Your task to perform on an android device: install app "Microsoft Authenticator" Image 0: 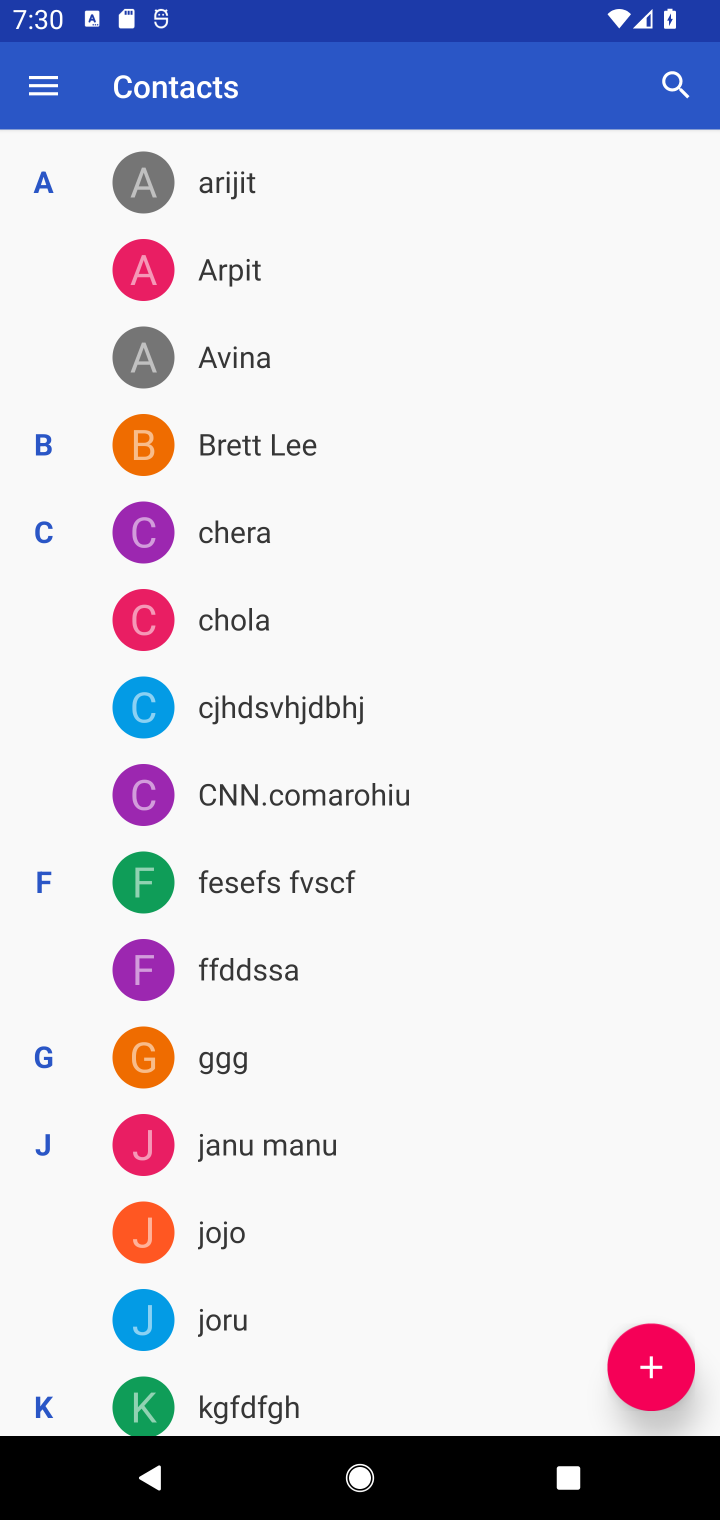
Step 0: press home button
Your task to perform on an android device: install app "Microsoft Authenticator" Image 1: 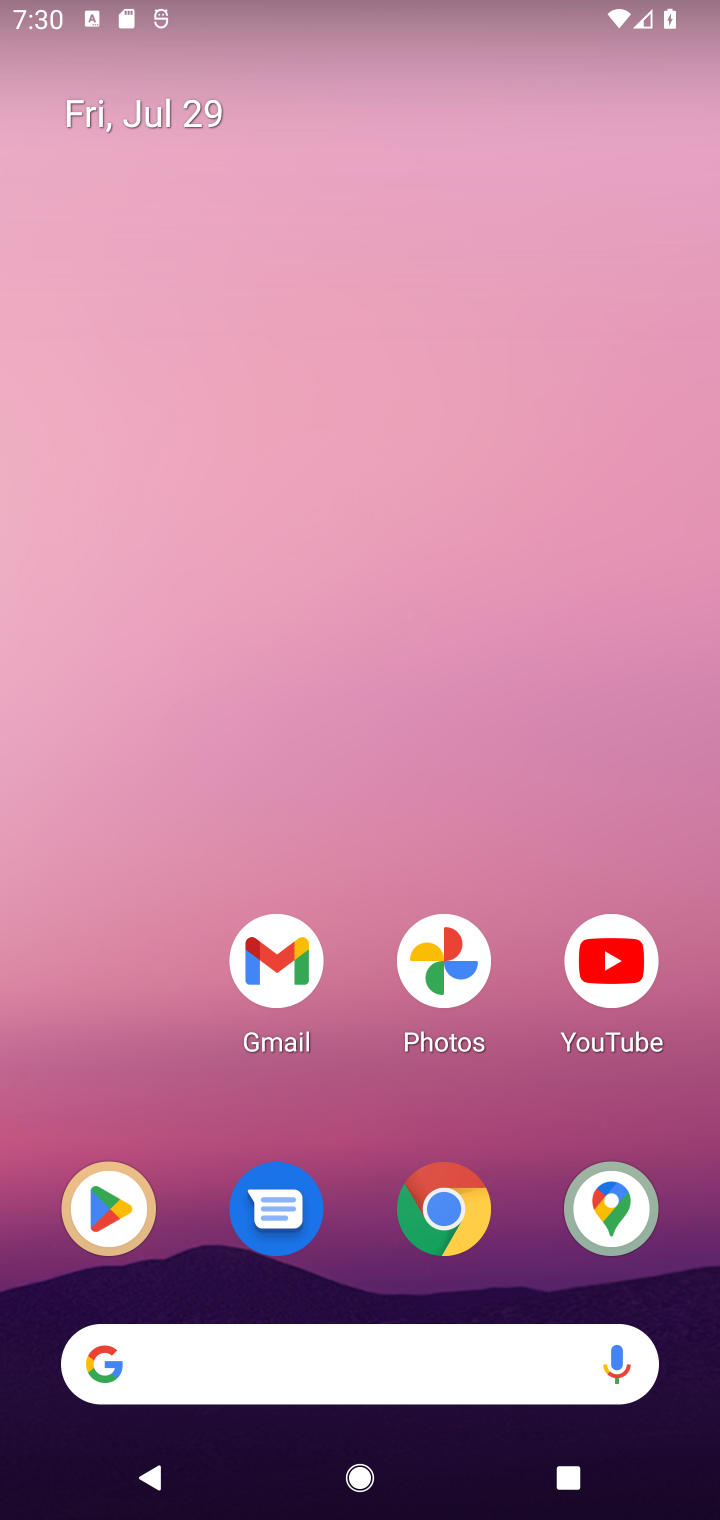
Step 1: click (121, 1209)
Your task to perform on an android device: install app "Microsoft Authenticator" Image 2: 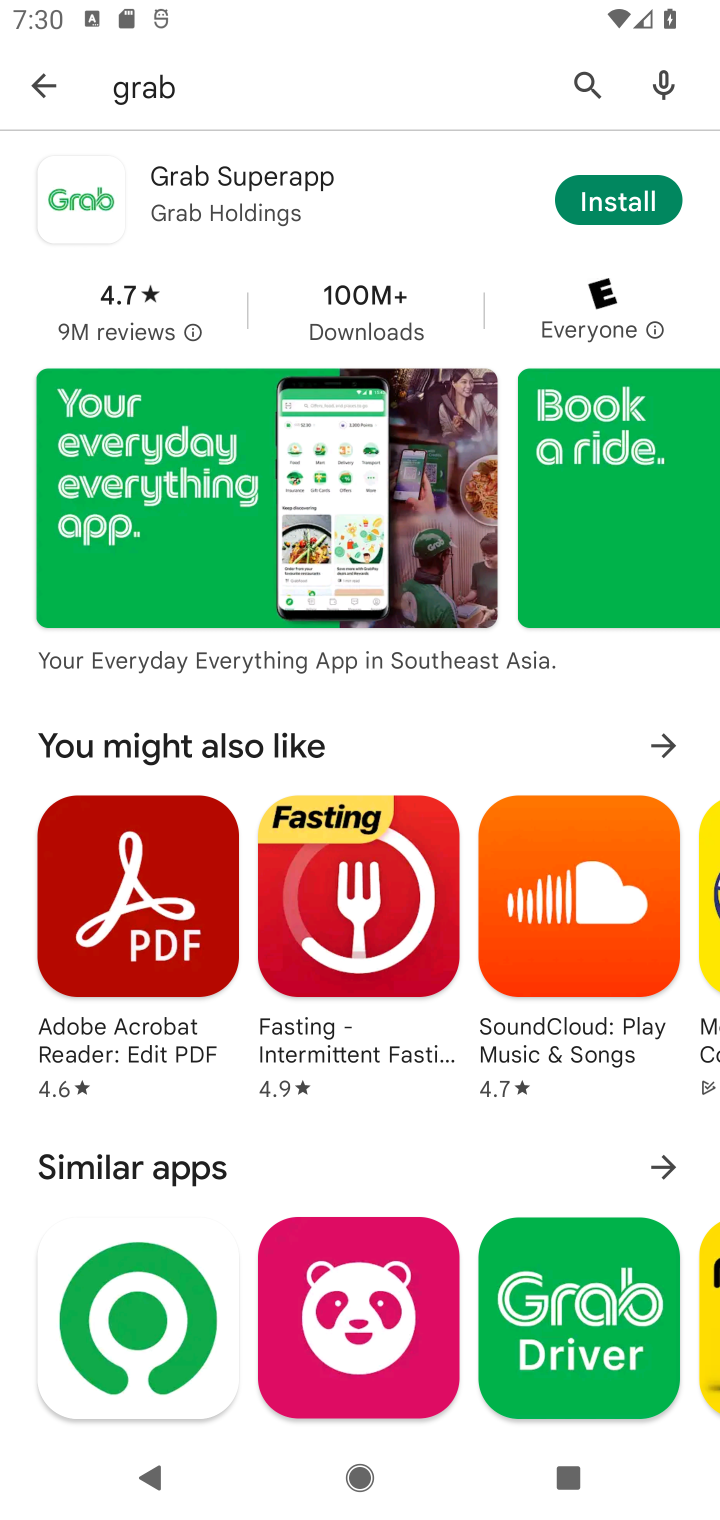
Step 2: click (597, 70)
Your task to perform on an android device: install app "Microsoft Authenticator" Image 3: 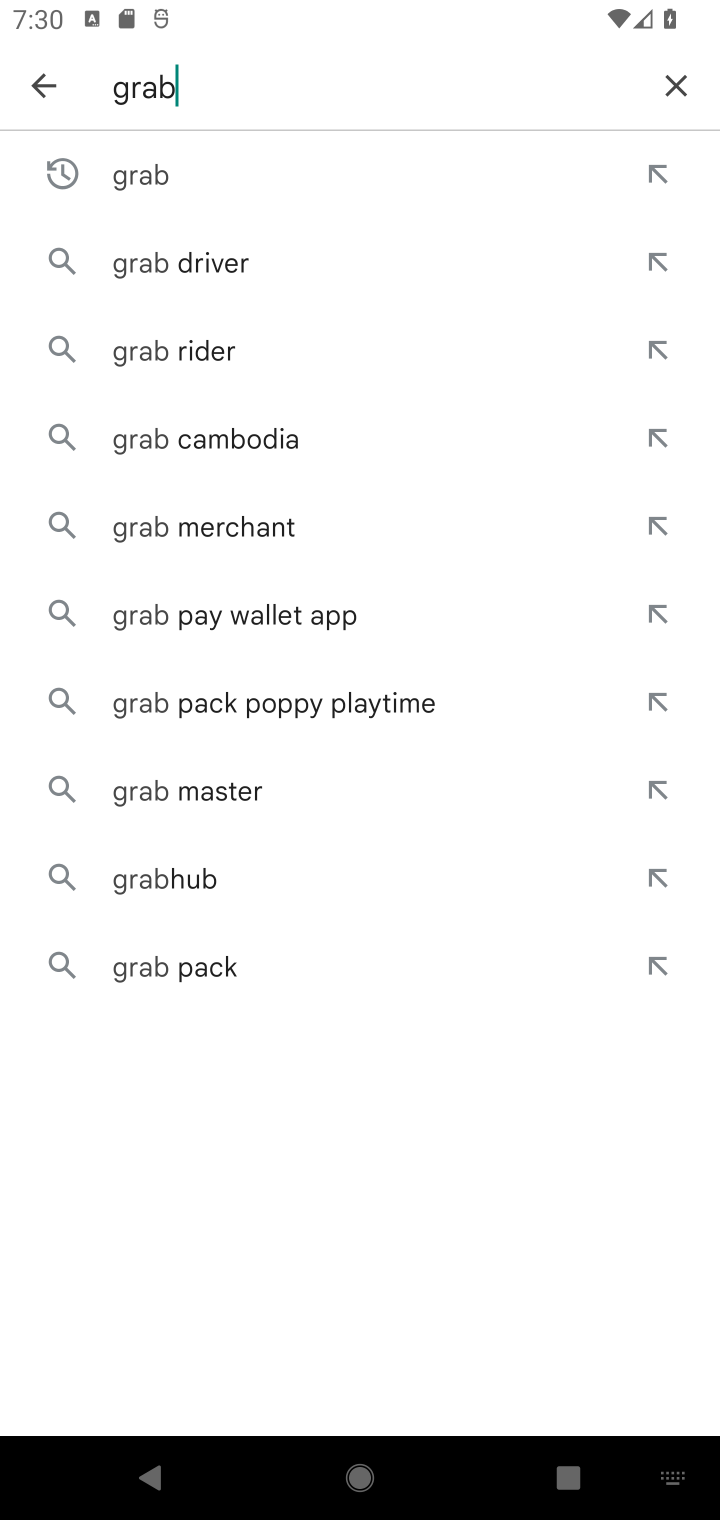
Step 3: click (678, 78)
Your task to perform on an android device: install app "Microsoft Authenticator" Image 4: 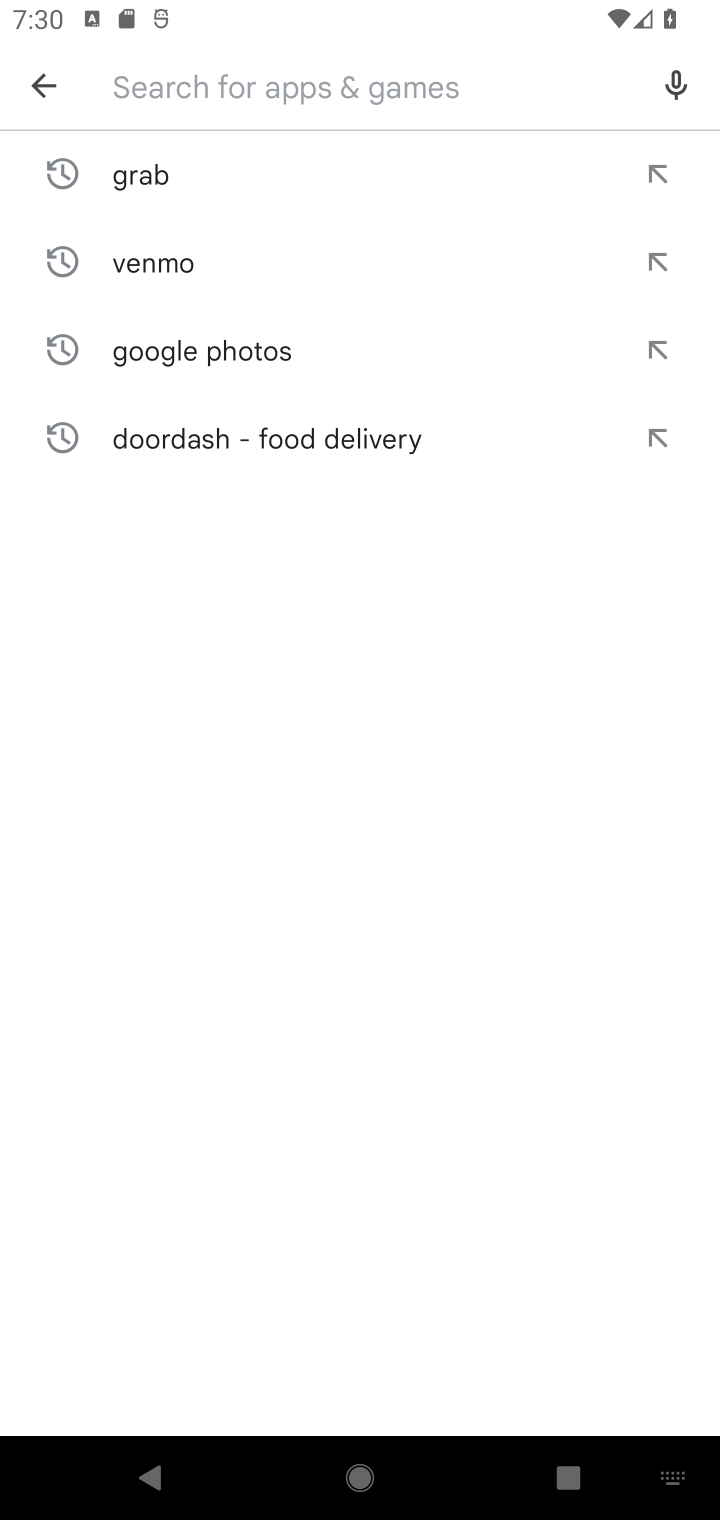
Step 4: type "Microsoft Authenticator"
Your task to perform on an android device: install app "Microsoft Authenticator" Image 5: 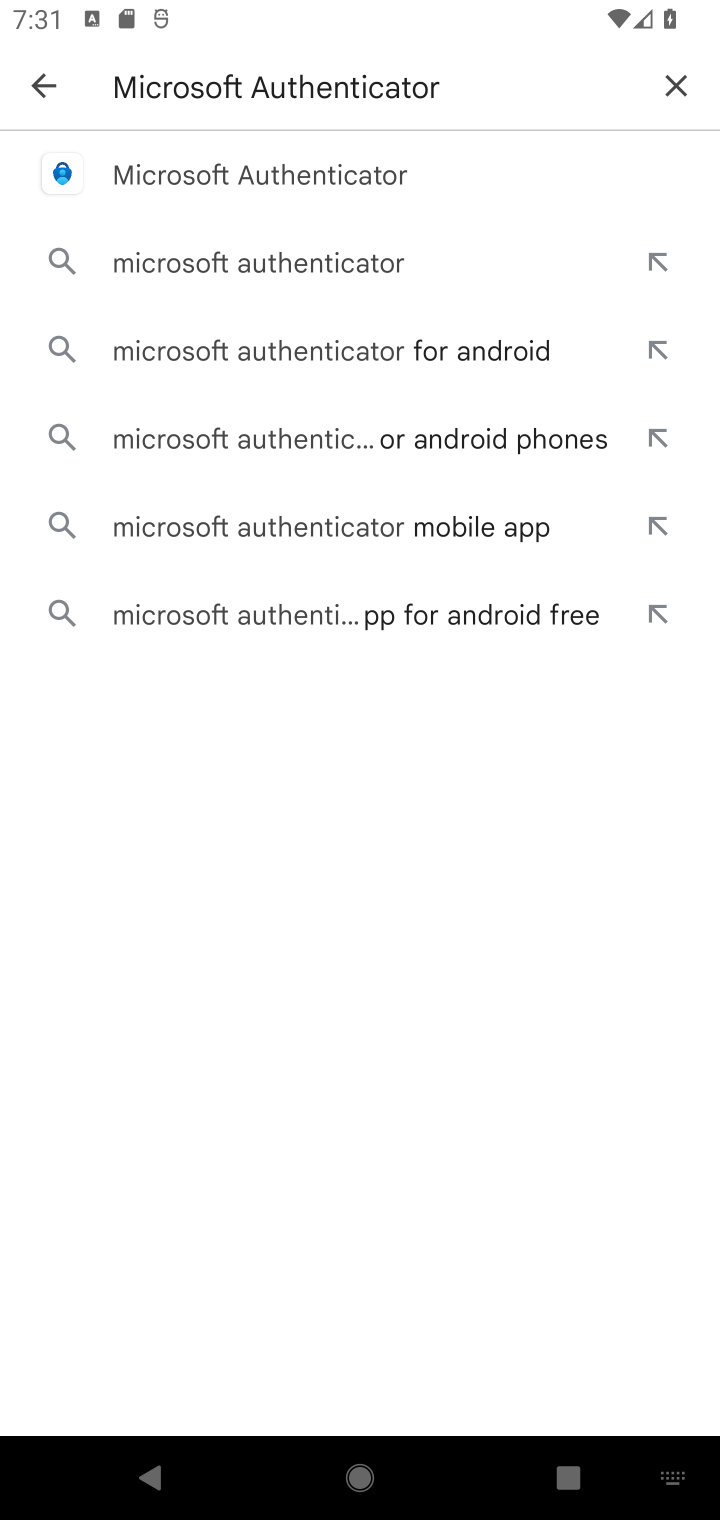
Step 5: click (232, 180)
Your task to perform on an android device: install app "Microsoft Authenticator" Image 6: 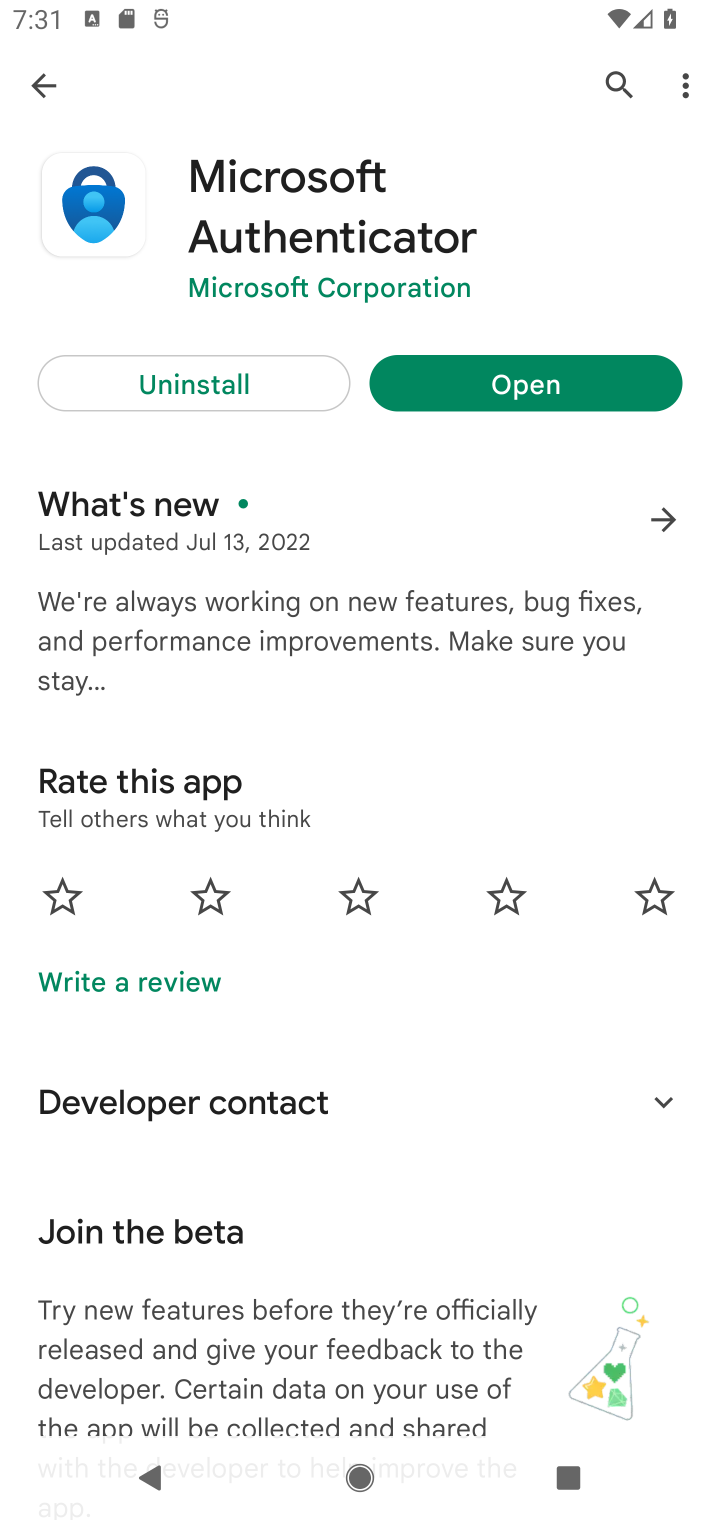
Step 6: task complete